Your task to perform on an android device: Open Youtube and go to the subscriptions tab Image 0: 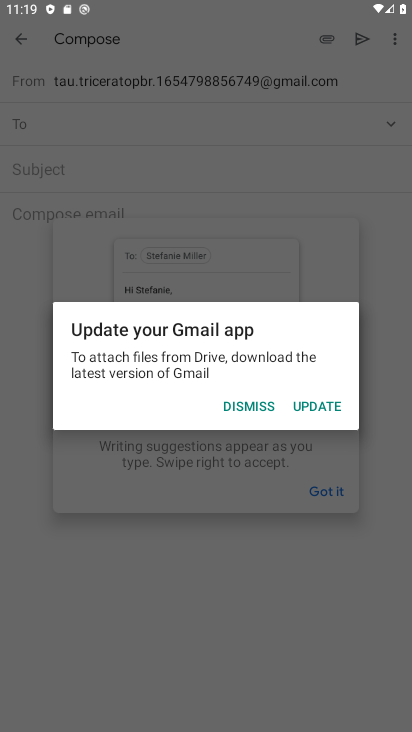
Step 0: click (226, 400)
Your task to perform on an android device: Open Youtube and go to the subscriptions tab Image 1: 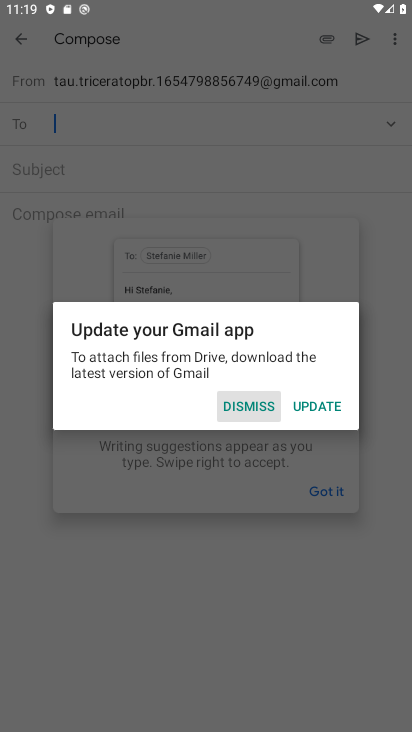
Step 1: click (226, 400)
Your task to perform on an android device: Open Youtube and go to the subscriptions tab Image 2: 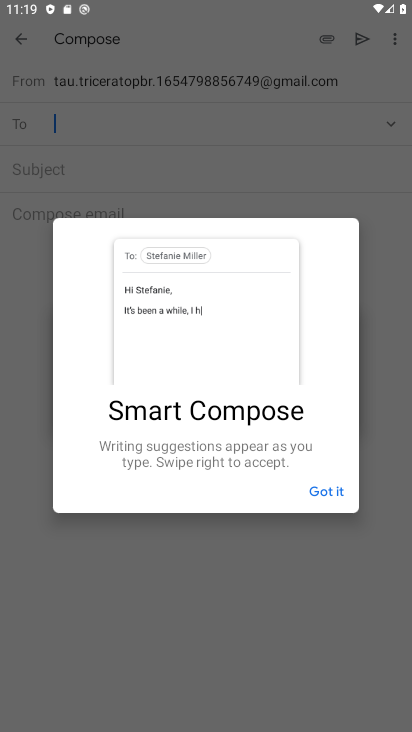
Step 2: press home button
Your task to perform on an android device: Open Youtube and go to the subscriptions tab Image 3: 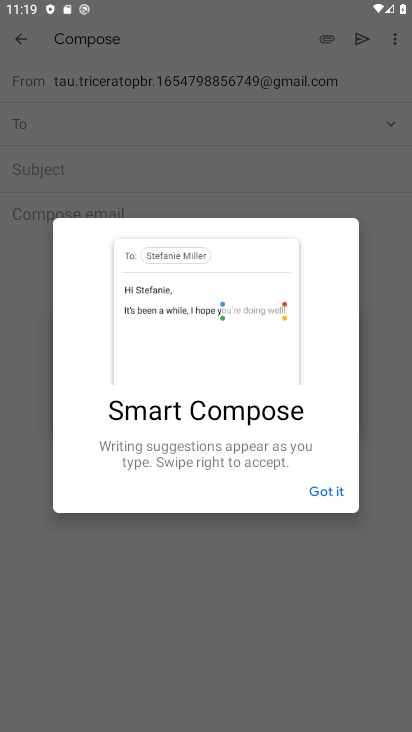
Step 3: press home button
Your task to perform on an android device: Open Youtube and go to the subscriptions tab Image 4: 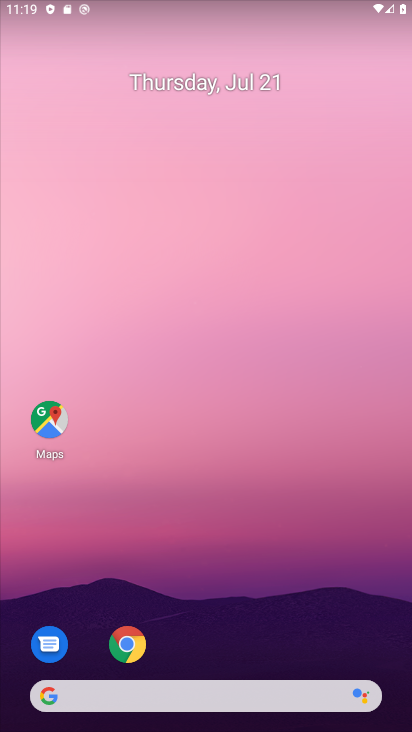
Step 4: drag from (193, 355) to (212, 184)
Your task to perform on an android device: Open Youtube and go to the subscriptions tab Image 5: 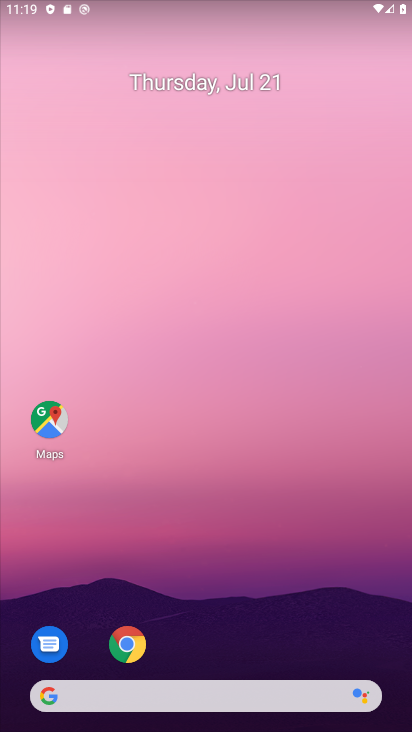
Step 5: drag from (230, 441) to (245, 175)
Your task to perform on an android device: Open Youtube and go to the subscriptions tab Image 6: 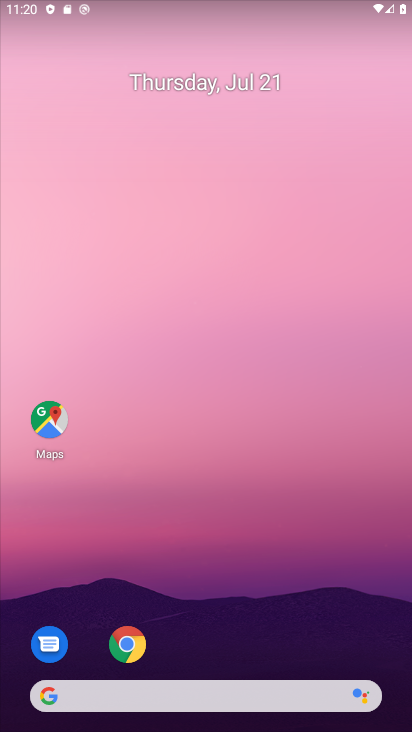
Step 6: drag from (184, 639) to (194, 30)
Your task to perform on an android device: Open Youtube and go to the subscriptions tab Image 7: 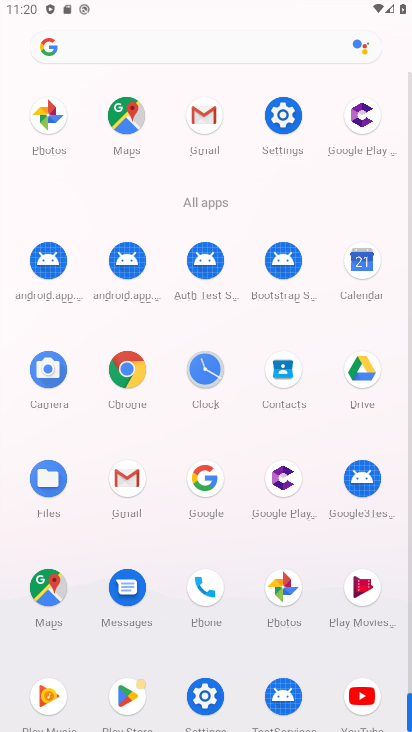
Step 7: click (359, 696)
Your task to perform on an android device: Open Youtube and go to the subscriptions tab Image 8: 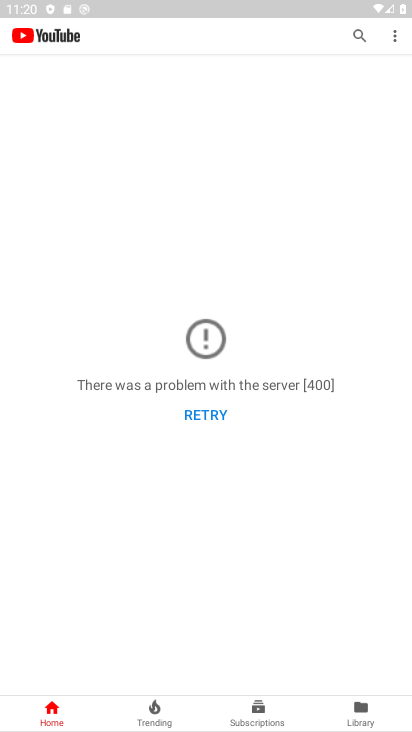
Step 8: click (256, 698)
Your task to perform on an android device: Open Youtube and go to the subscriptions tab Image 9: 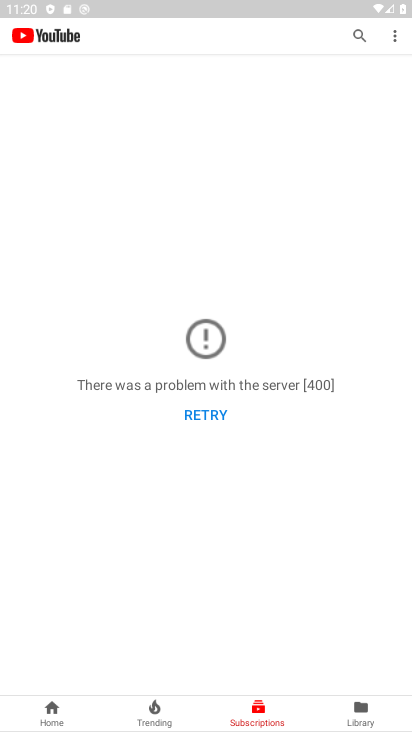
Step 9: task complete